Your task to perform on an android device: move a message to another label in the gmail app Image 0: 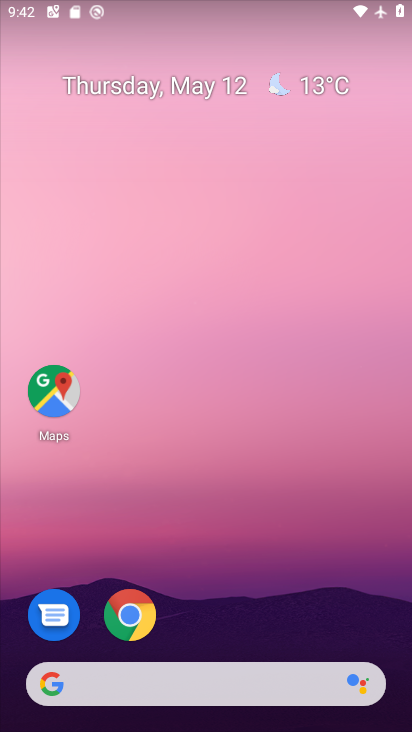
Step 0: drag from (255, 541) to (148, 47)
Your task to perform on an android device: move a message to another label in the gmail app Image 1: 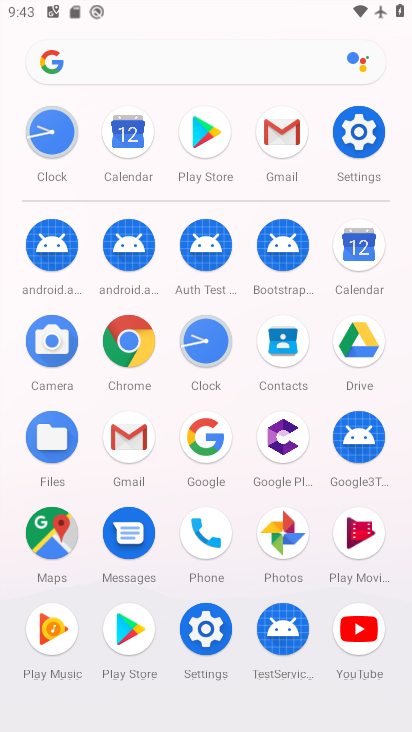
Step 1: click (101, 441)
Your task to perform on an android device: move a message to another label in the gmail app Image 2: 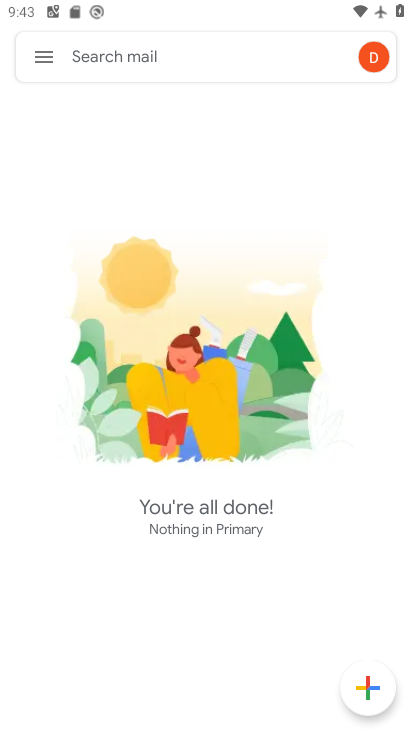
Step 2: click (43, 65)
Your task to perform on an android device: move a message to another label in the gmail app Image 3: 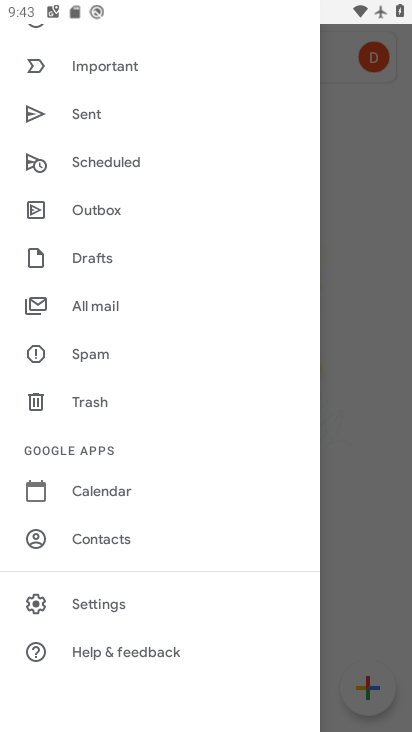
Step 3: click (113, 302)
Your task to perform on an android device: move a message to another label in the gmail app Image 4: 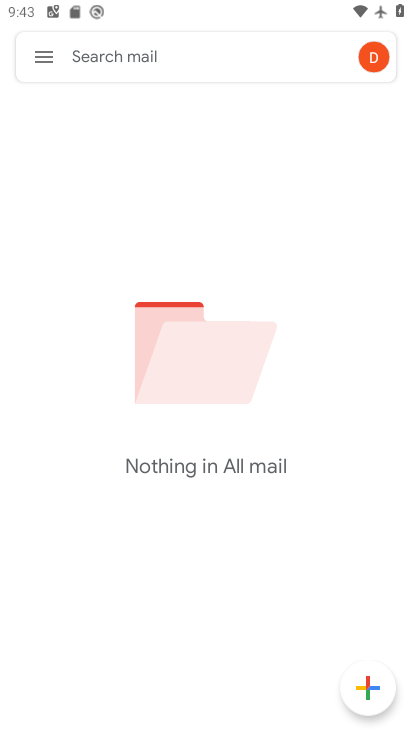
Step 4: task complete